Your task to perform on an android device: When is my next meeting? Image 0: 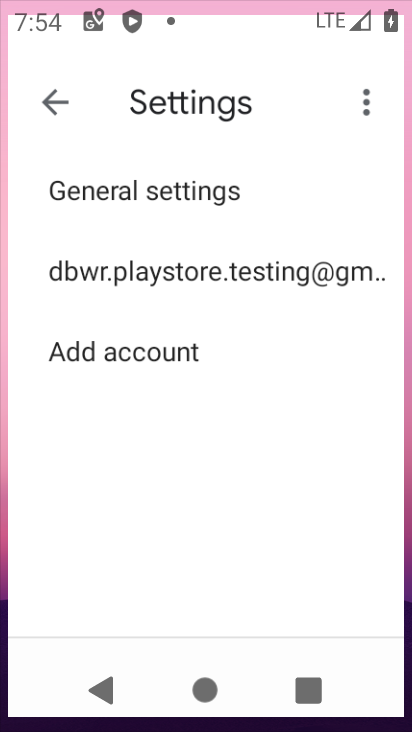
Step 0: drag from (182, 547) to (207, 157)
Your task to perform on an android device: When is my next meeting? Image 1: 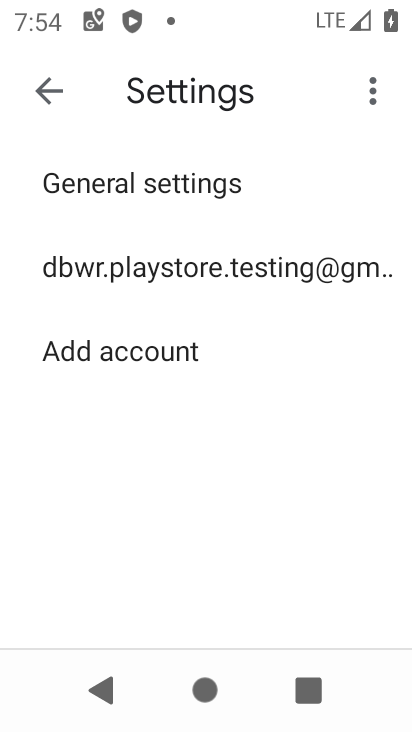
Step 1: press home button
Your task to perform on an android device: When is my next meeting? Image 2: 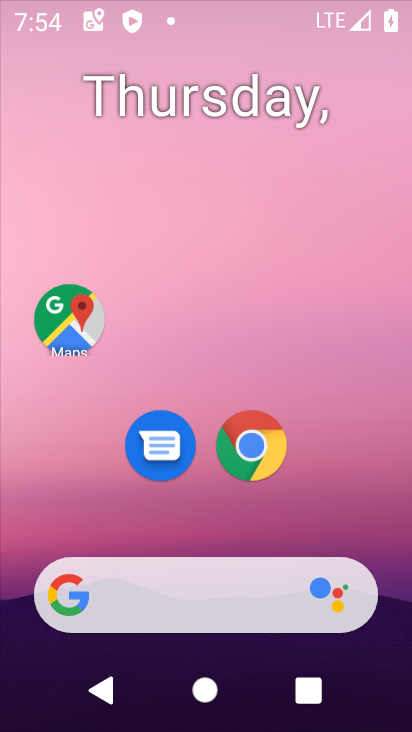
Step 2: drag from (218, 574) to (258, 114)
Your task to perform on an android device: When is my next meeting? Image 3: 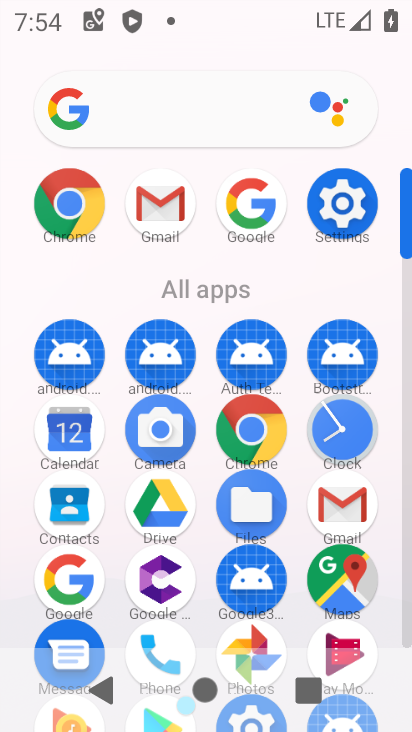
Step 3: drag from (212, 624) to (240, 291)
Your task to perform on an android device: When is my next meeting? Image 4: 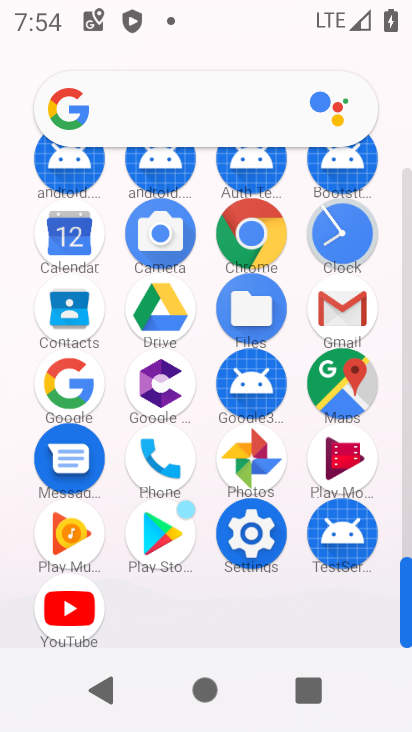
Step 4: click (68, 231)
Your task to perform on an android device: When is my next meeting? Image 5: 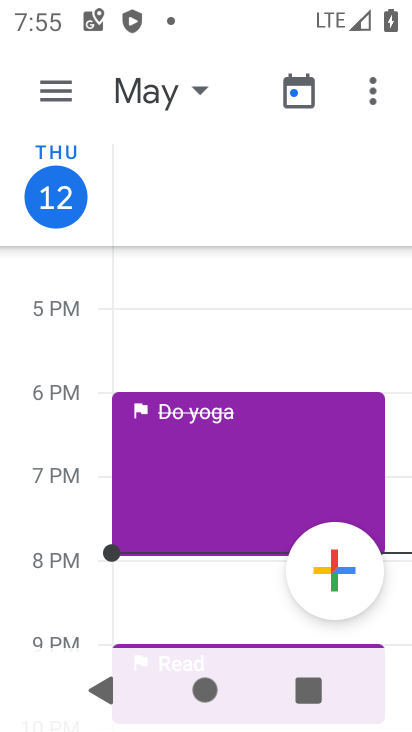
Step 5: click (177, 99)
Your task to perform on an android device: When is my next meeting? Image 6: 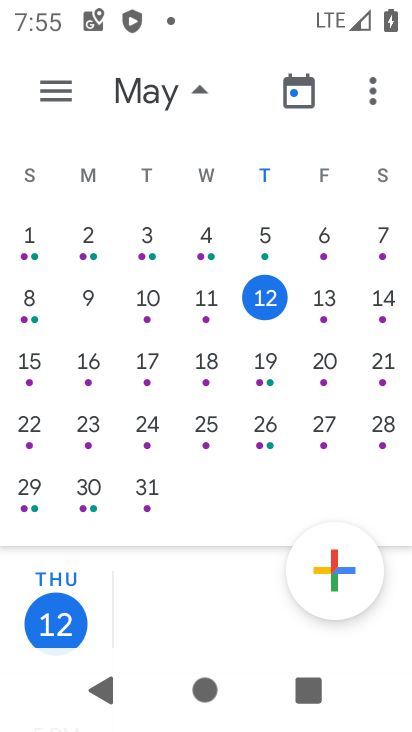
Step 6: click (266, 293)
Your task to perform on an android device: When is my next meeting? Image 7: 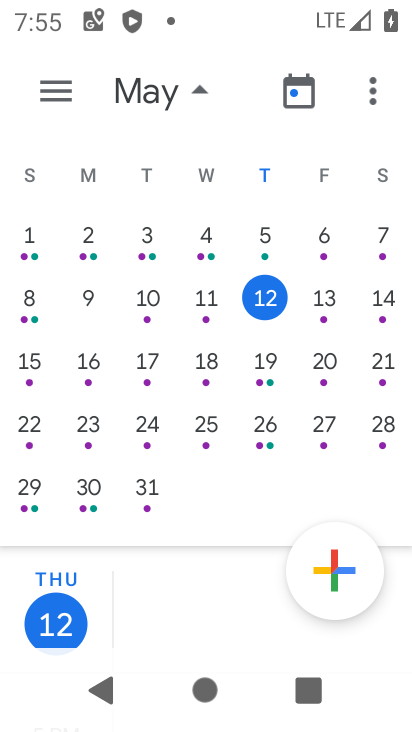
Step 7: drag from (185, 610) to (301, 178)
Your task to perform on an android device: When is my next meeting? Image 8: 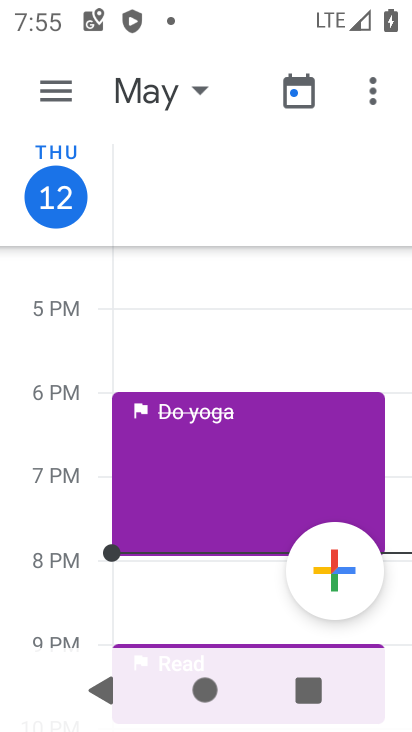
Step 8: drag from (214, 514) to (313, 234)
Your task to perform on an android device: When is my next meeting? Image 9: 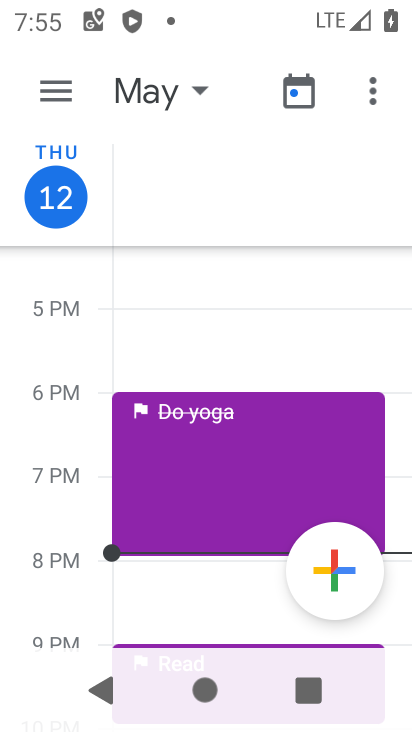
Step 9: drag from (201, 583) to (203, 220)
Your task to perform on an android device: When is my next meeting? Image 10: 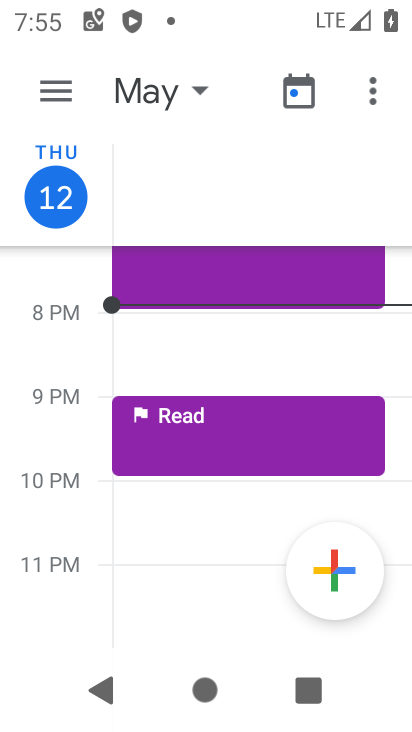
Step 10: click (192, 563)
Your task to perform on an android device: When is my next meeting? Image 11: 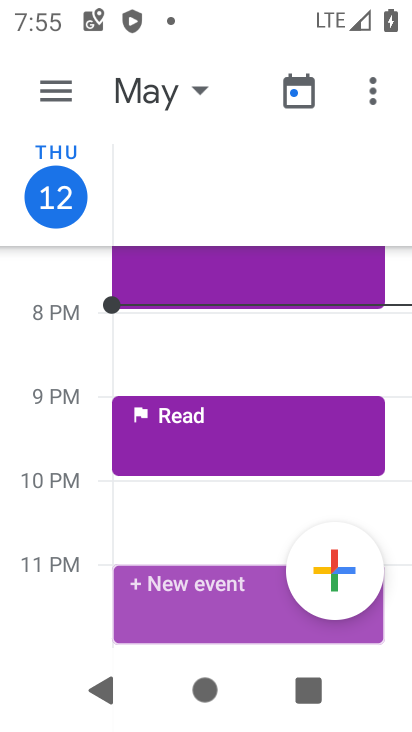
Step 11: task complete